Your task to perform on an android device: refresh tabs in the chrome app Image 0: 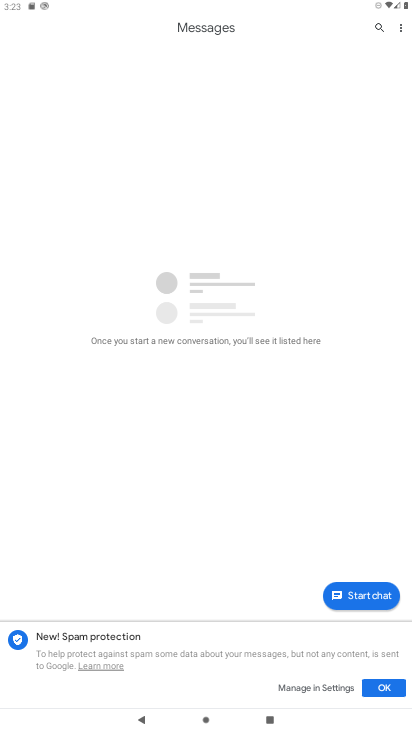
Step 0: press home button
Your task to perform on an android device: refresh tabs in the chrome app Image 1: 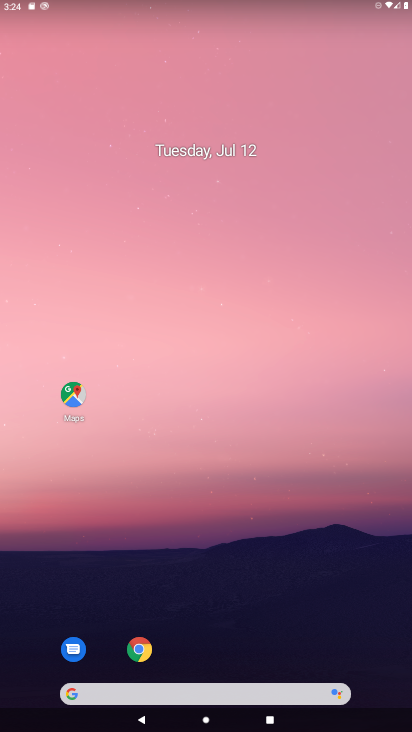
Step 1: click (148, 657)
Your task to perform on an android device: refresh tabs in the chrome app Image 2: 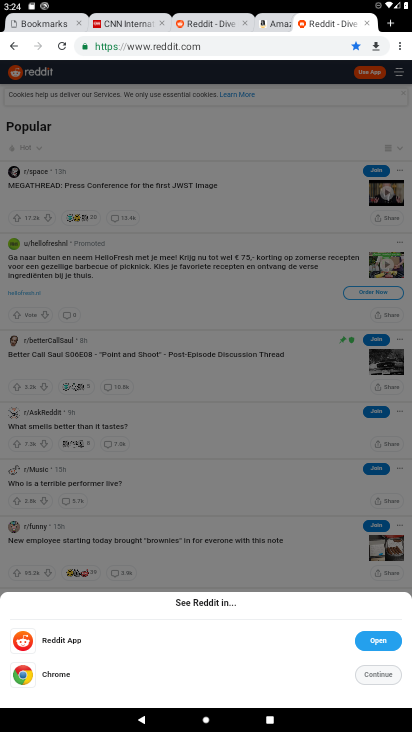
Step 2: click (59, 48)
Your task to perform on an android device: refresh tabs in the chrome app Image 3: 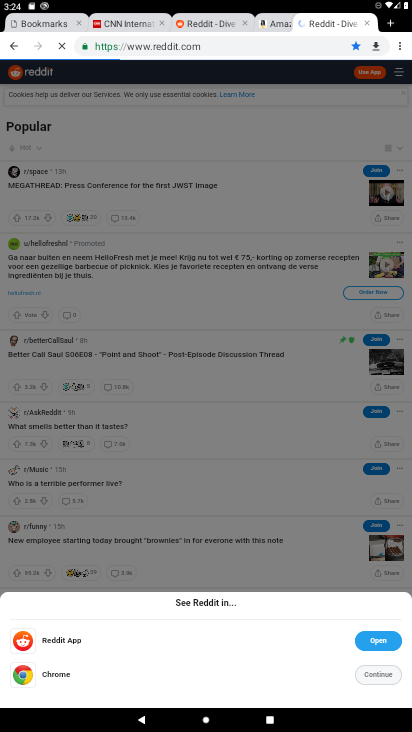
Step 3: task complete